Your task to perform on an android device: change notifications settings Image 0: 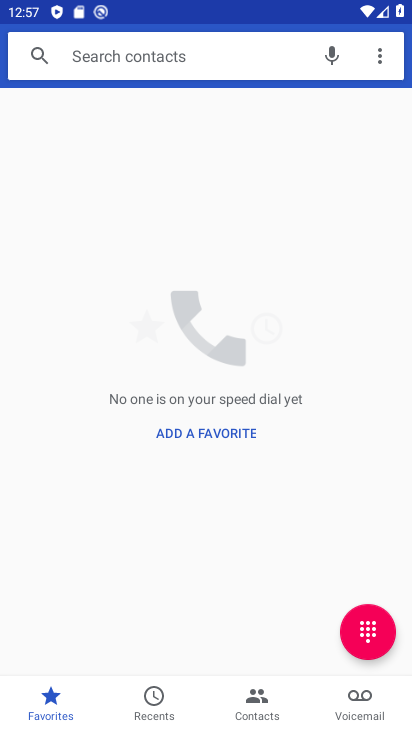
Step 0: press home button
Your task to perform on an android device: change notifications settings Image 1: 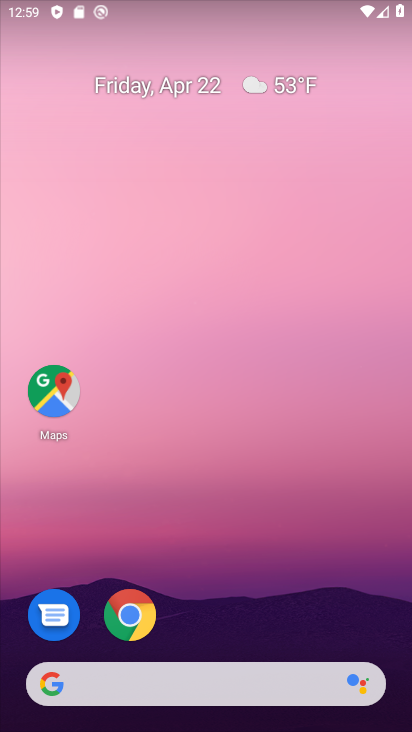
Step 1: drag from (227, 714) to (182, 37)
Your task to perform on an android device: change notifications settings Image 2: 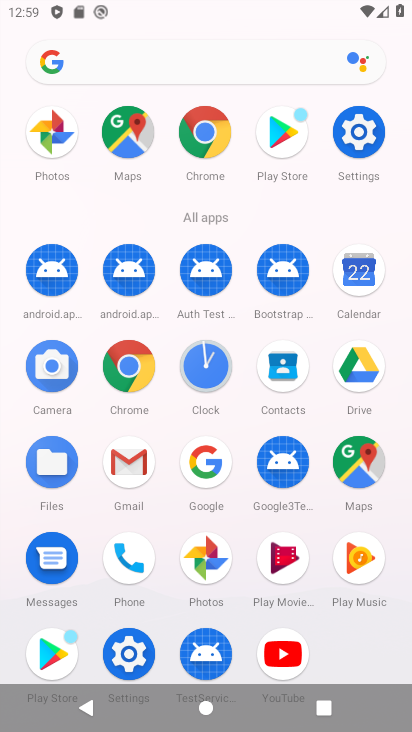
Step 2: click (357, 121)
Your task to perform on an android device: change notifications settings Image 3: 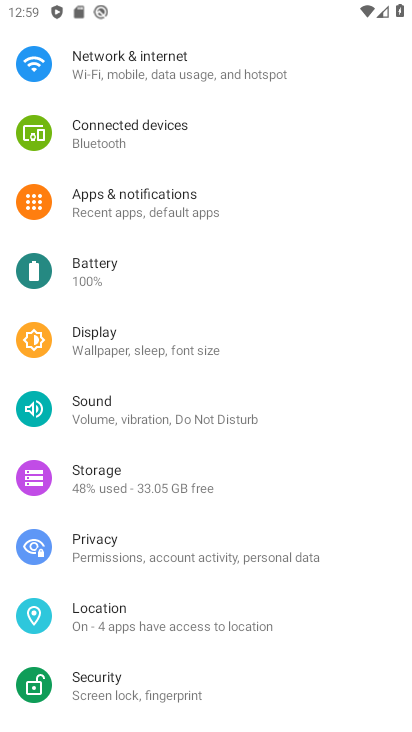
Step 3: click (206, 215)
Your task to perform on an android device: change notifications settings Image 4: 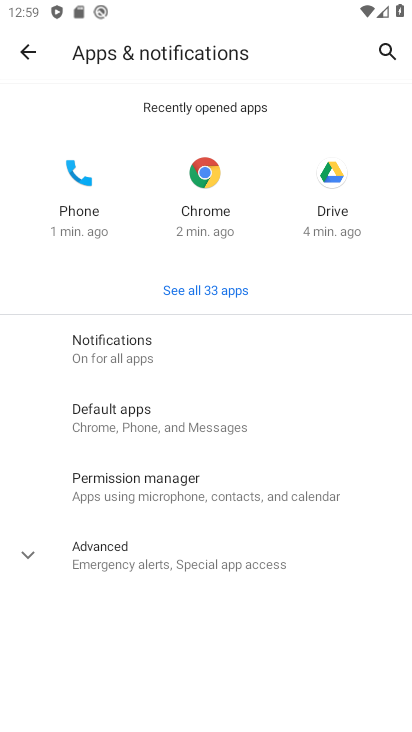
Step 4: click (127, 356)
Your task to perform on an android device: change notifications settings Image 5: 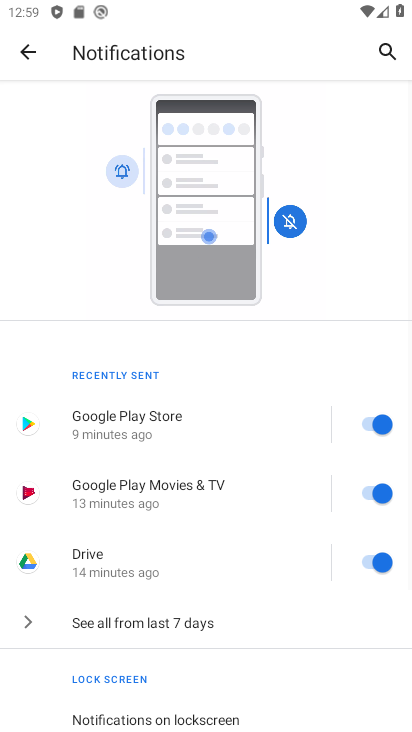
Step 5: click (368, 416)
Your task to perform on an android device: change notifications settings Image 6: 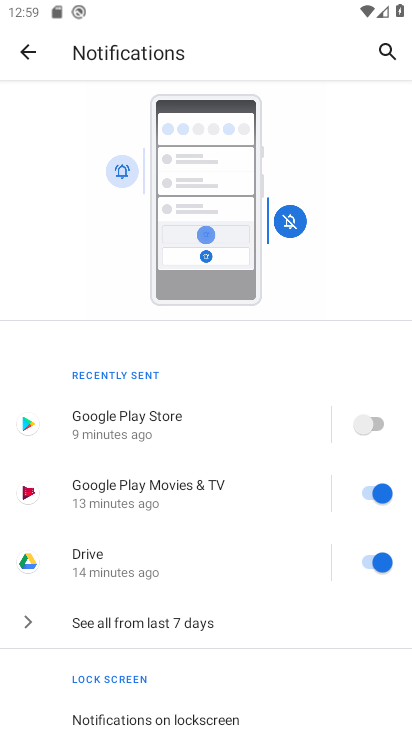
Step 6: task complete